Your task to perform on an android device: turn on data saver in the chrome app Image 0: 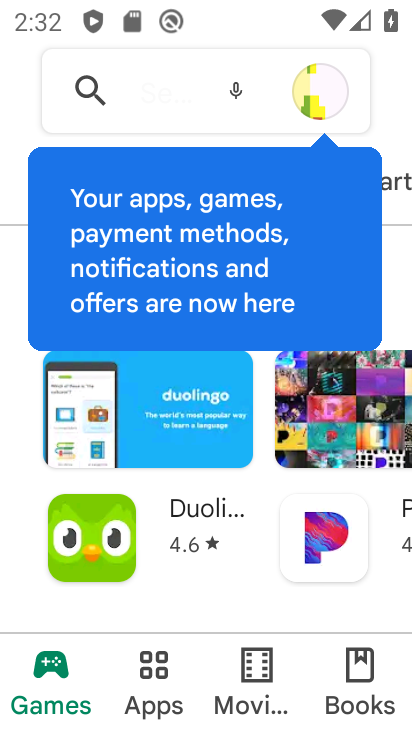
Step 0: press home button
Your task to perform on an android device: turn on data saver in the chrome app Image 1: 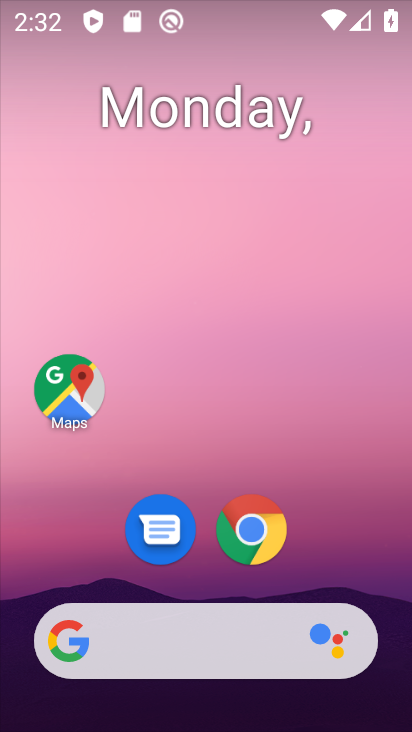
Step 1: drag from (318, 563) to (336, 180)
Your task to perform on an android device: turn on data saver in the chrome app Image 2: 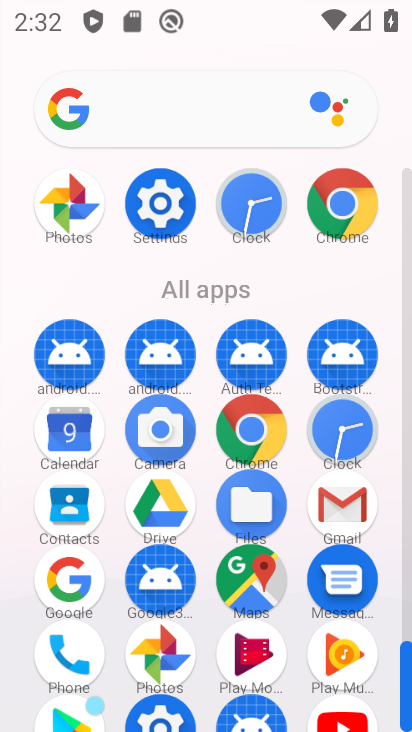
Step 2: click (245, 433)
Your task to perform on an android device: turn on data saver in the chrome app Image 3: 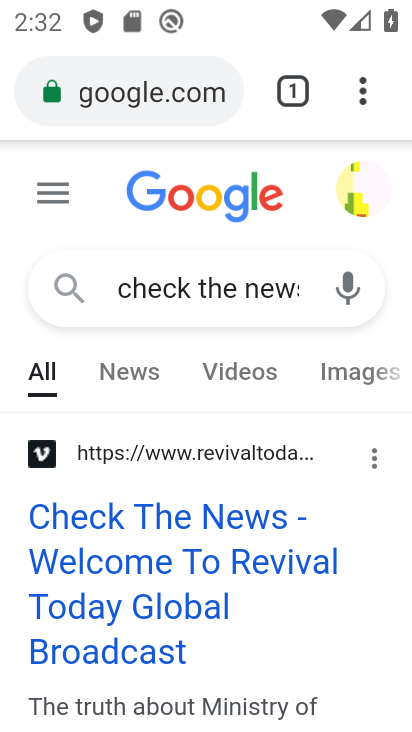
Step 3: drag from (375, 103) to (265, 558)
Your task to perform on an android device: turn on data saver in the chrome app Image 4: 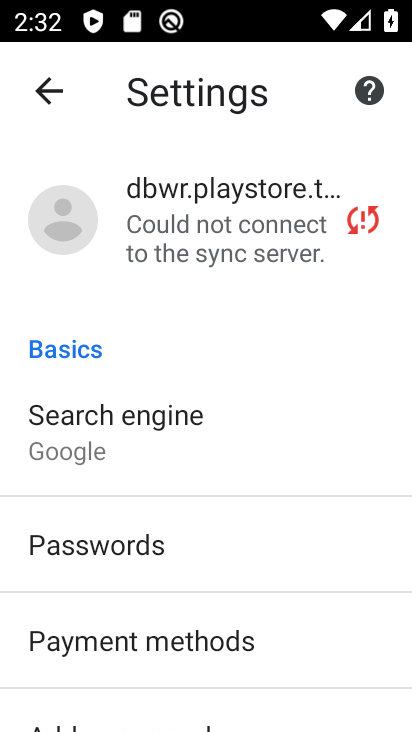
Step 4: drag from (303, 624) to (310, 357)
Your task to perform on an android device: turn on data saver in the chrome app Image 5: 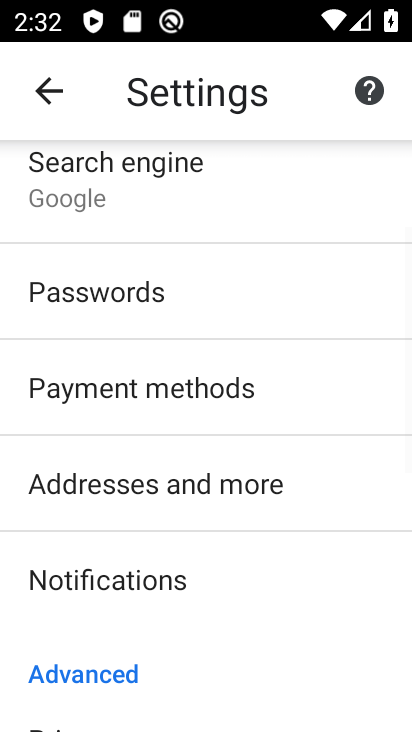
Step 5: drag from (345, 627) to (348, 311)
Your task to perform on an android device: turn on data saver in the chrome app Image 6: 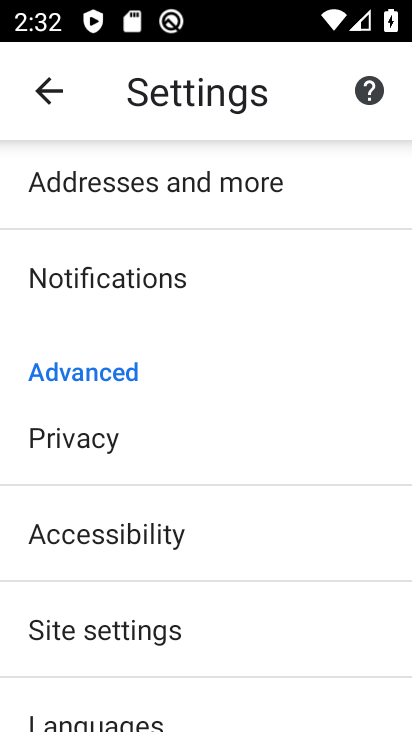
Step 6: drag from (347, 623) to (345, 277)
Your task to perform on an android device: turn on data saver in the chrome app Image 7: 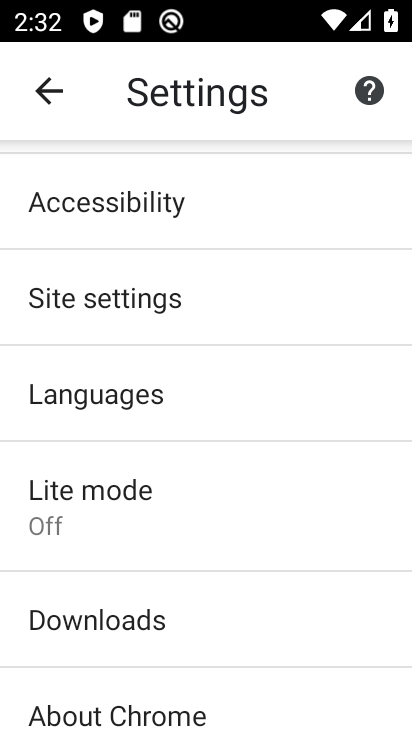
Step 7: click (172, 507)
Your task to perform on an android device: turn on data saver in the chrome app Image 8: 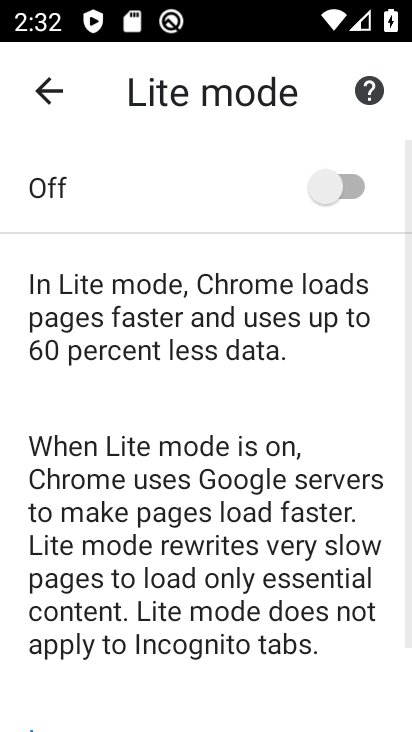
Step 8: click (352, 195)
Your task to perform on an android device: turn on data saver in the chrome app Image 9: 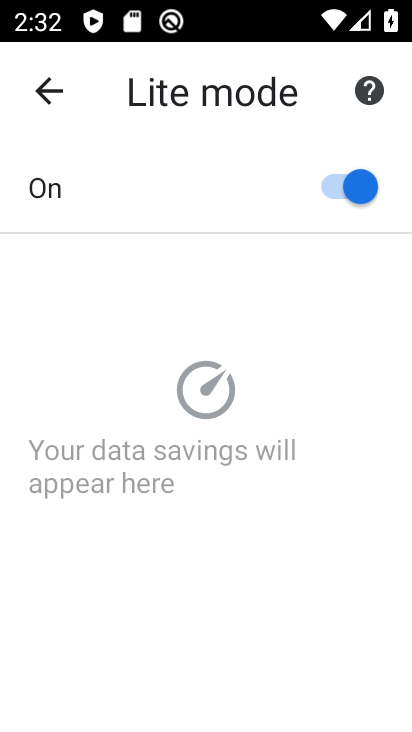
Step 9: task complete